Your task to perform on an android device: move an email to a new category in the gmail app Image 0: 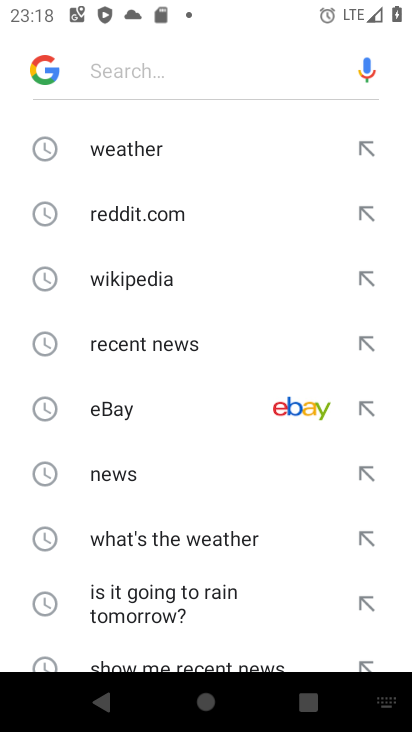
Step 0: press home button
Your task to perform on an android device: move an email to a new category in the gmail app Image 1: 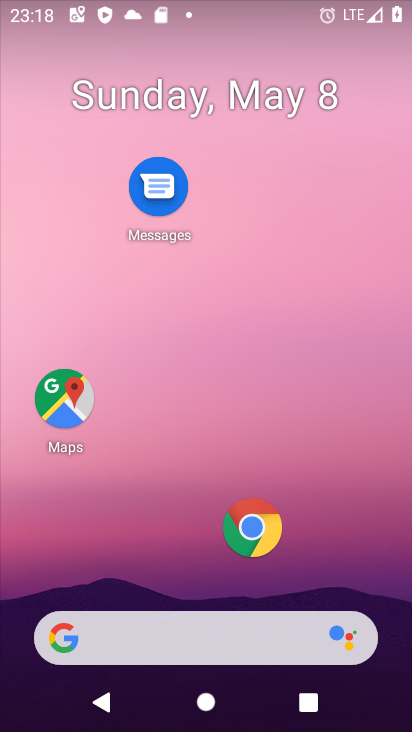
Step 1: drag from (163, 523) to (218, 106)
Your task to perform on an android device: move an email to a new category in the gmail app Image 2: 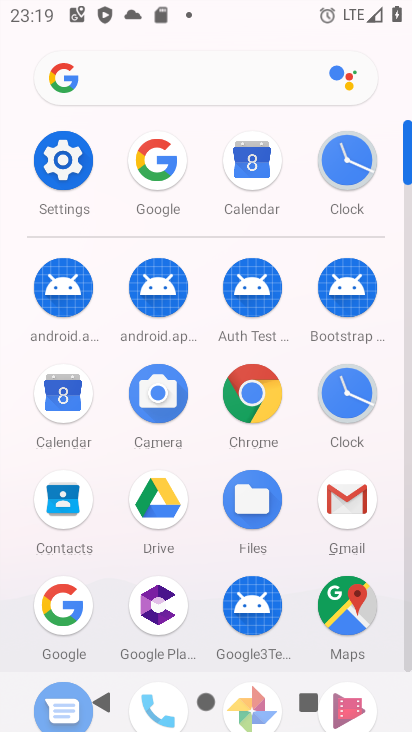
Step 2: click (348, 494)
Your task to perform on an android device: move an email to a new category in the gmail app Image 3: 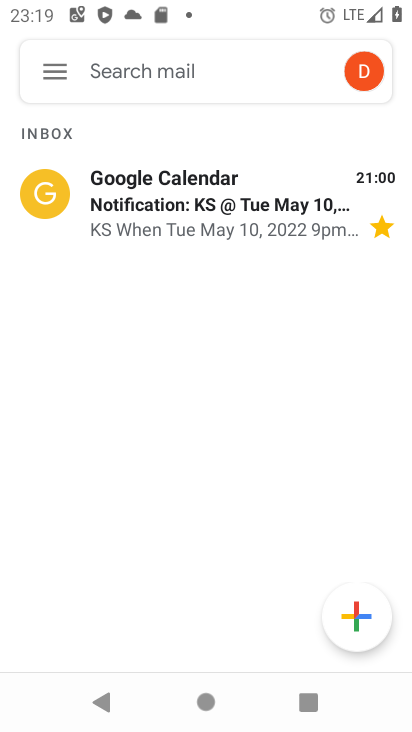
Step 3: click (227, 208)
Your task to perform on an android device: move an email to a new category in the gmail app Image 4: 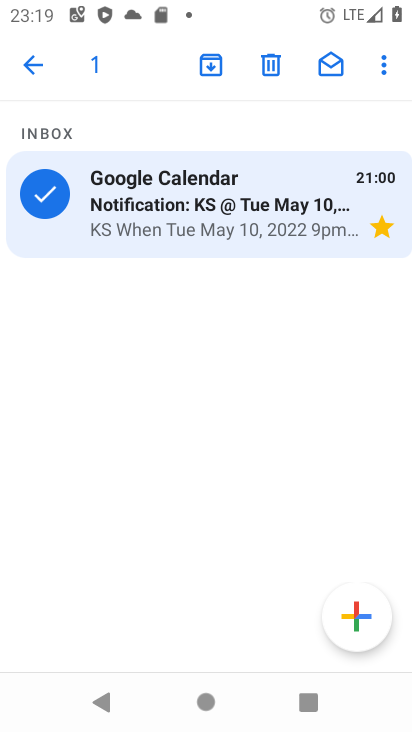
Step 4: click (381, 49)
Your task to perform on an android device: move an email to a new category in the gmail app Image 5: 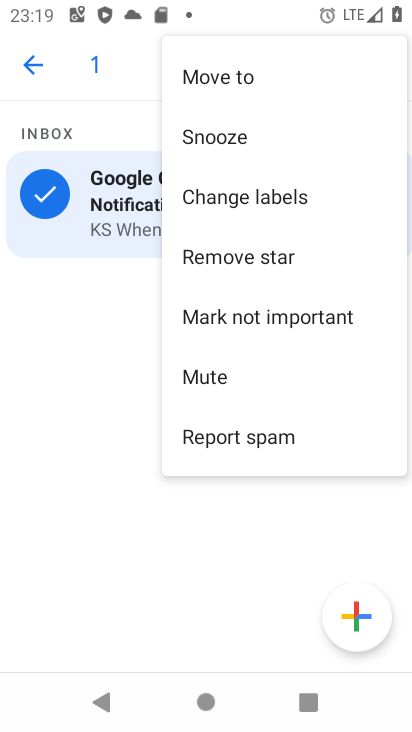
Step 5: click (249, 75)
Your task to perform on an android device: move an email to a new category in the gmail app Image 6: 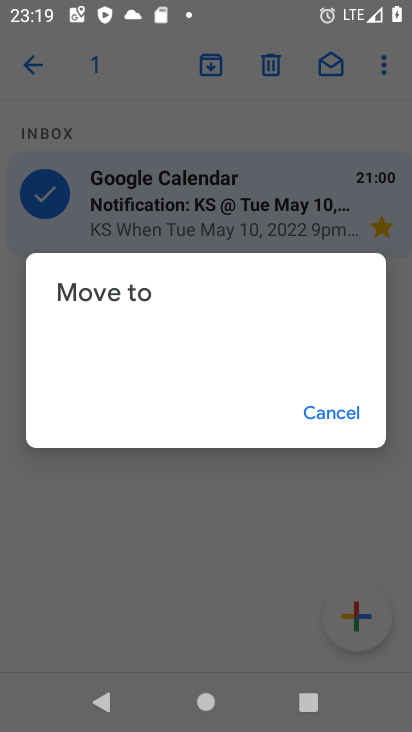
Step 6: click (335, 421)
Your task to perform on an android device: move an email to a new category in the gmail app Image 7: 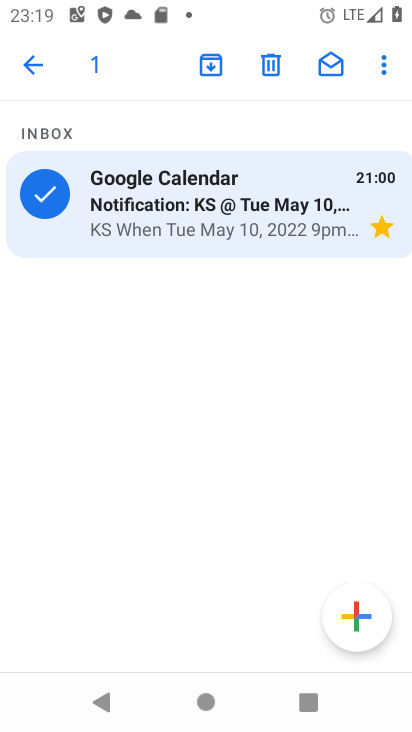
Step 7: click (369, 66)
Your task to perform on an android device: move an email to a new category in the gmail app Image 8: 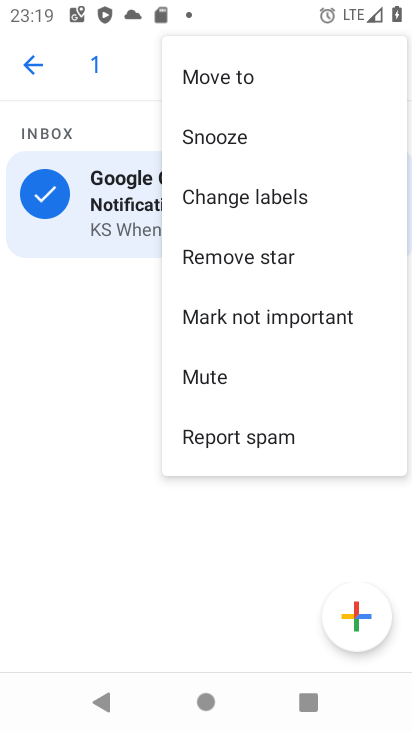
Step 8: click (256, 80)
Your task to perform on an android device: move an email to a new category in the gmail app Image 9: 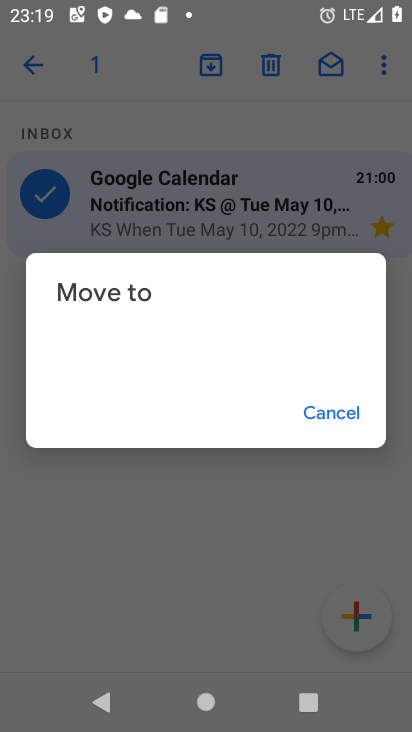
Step 9: drag from (197, 388) to (212, 224)
Your task to perform on an android device: move an email to a new category in the gmail app Image 10: 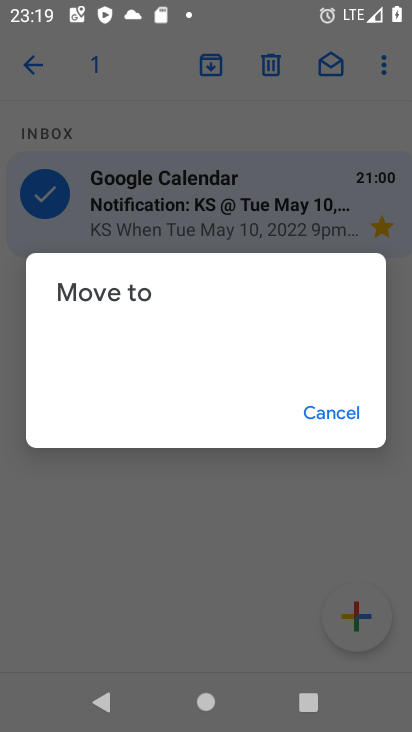
Step 10: click (324, 417)
Your task to perform on an android device: move an email to a new category in the gmail app Image 11: 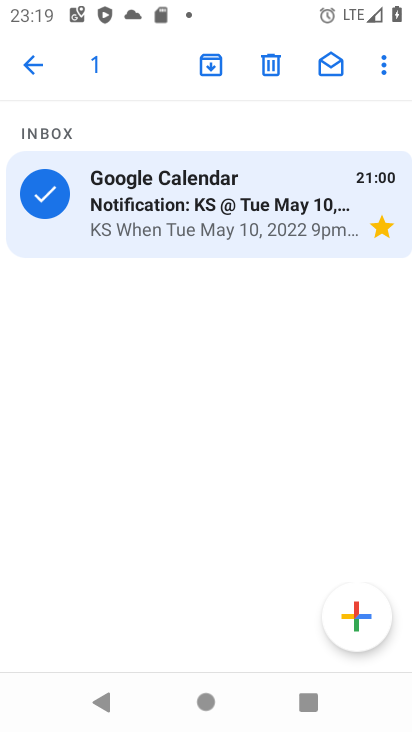
Step 11: task complete